Your task to perform on an android device: set the stopwatch Image 0: 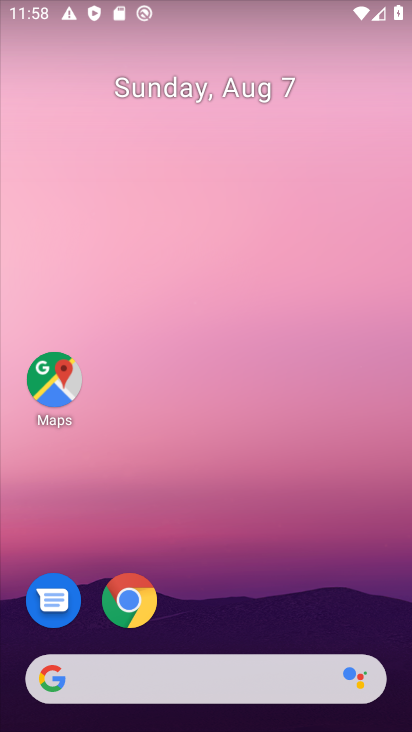
Step 0: drag from (205, 622) to (279, 121)
Your task to perform on an android device: set the stopwatch Image 1: 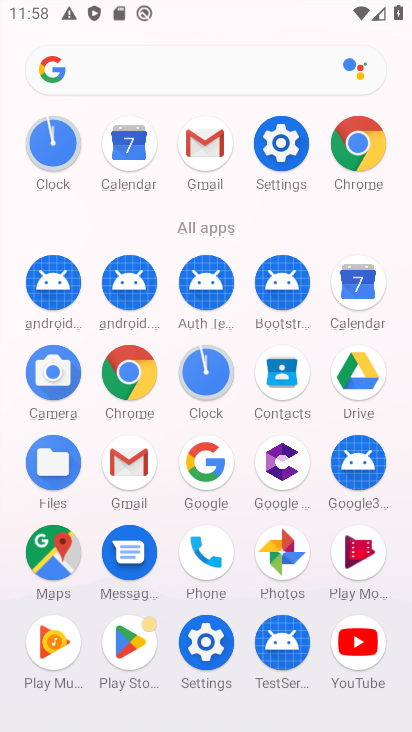
Step 1: click (201, 361)
Your task to perform on an android device: set the stopwatch Image 2: 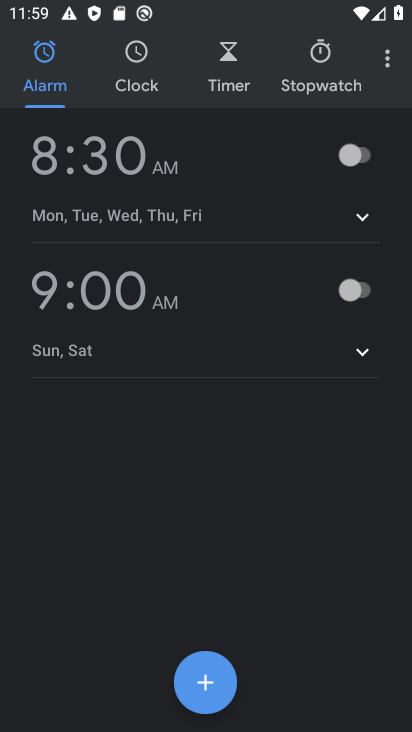
Step 2: click (320, 99)
Your task to perform on an android device: set the stopwatch Image 3: 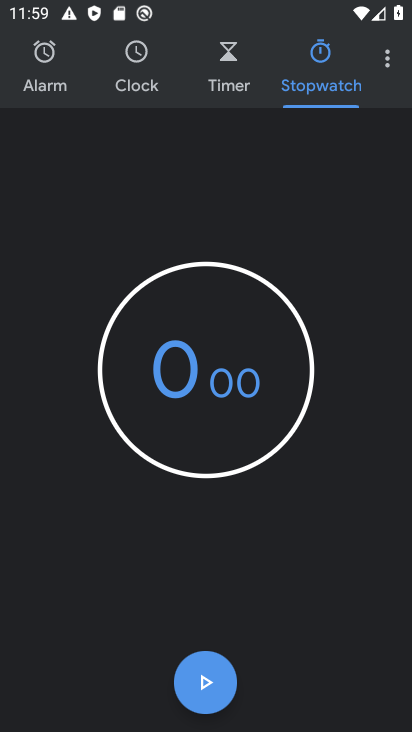
Step 3: task complete